Your task to perform on an android device: install app "Calculator" Image 0: 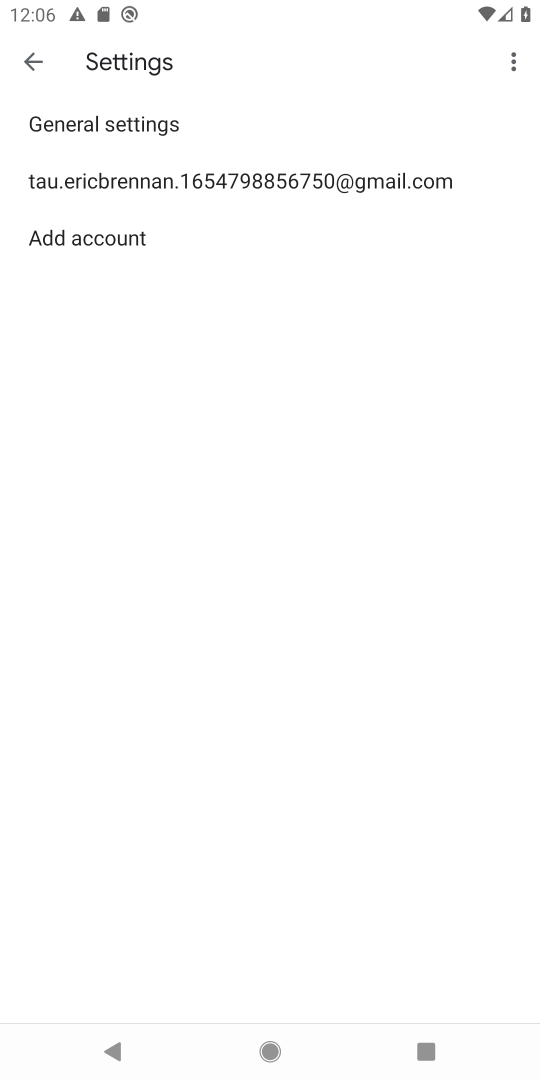
Step 0: press home button
Your task to perform on an android device: install app "Calculator" Image 1: 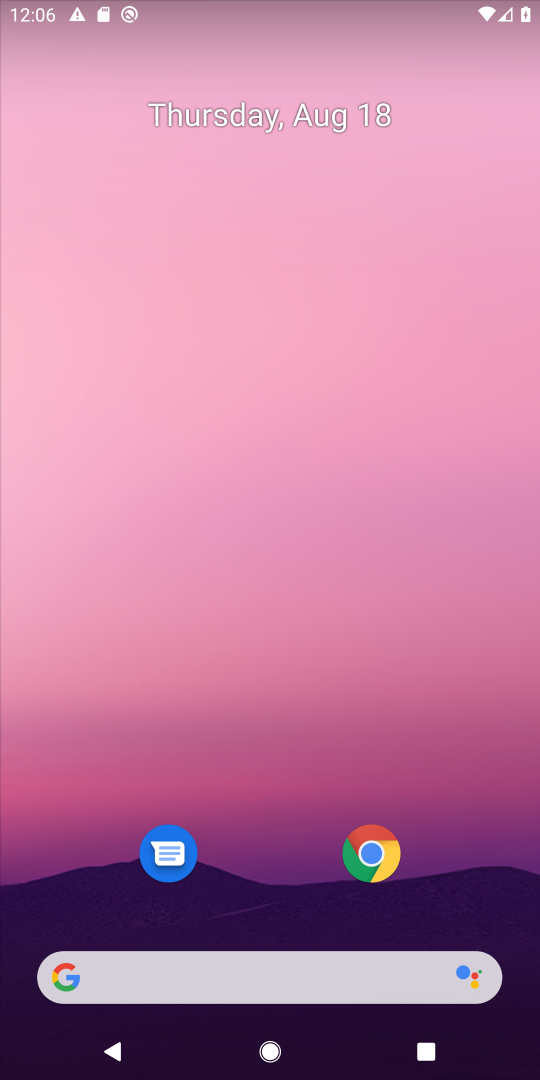
Step 1: drag from (277, 981) to (378, 22)
Your task to perform on an android device: install app "Calculator" Image 2: 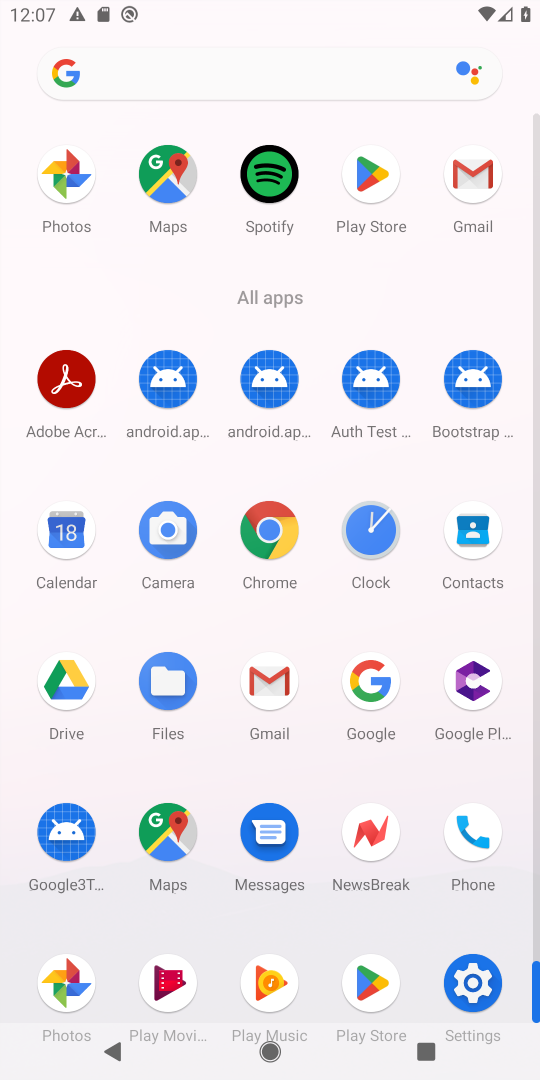
Step 2: click (379, 990)
Your task to perform on an android device: install app "Calculator" Image 3: 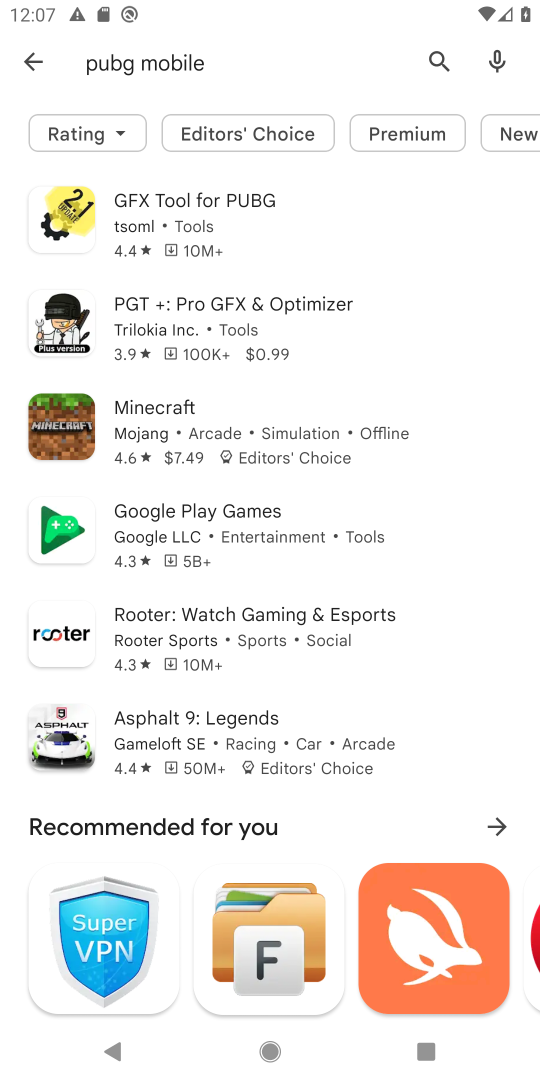
Step 3: click (32, 65)
Your task to perform on an android device: install app "Calculator" Image 4: 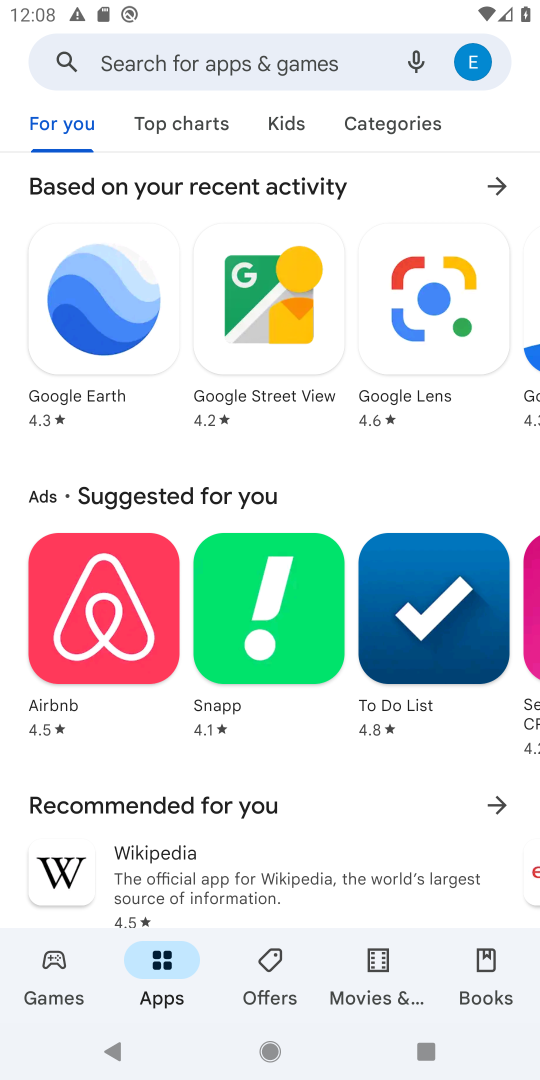
Step 4: click (175, 74)
Your task to perform on an android device: install app "Calculator" Image 5: 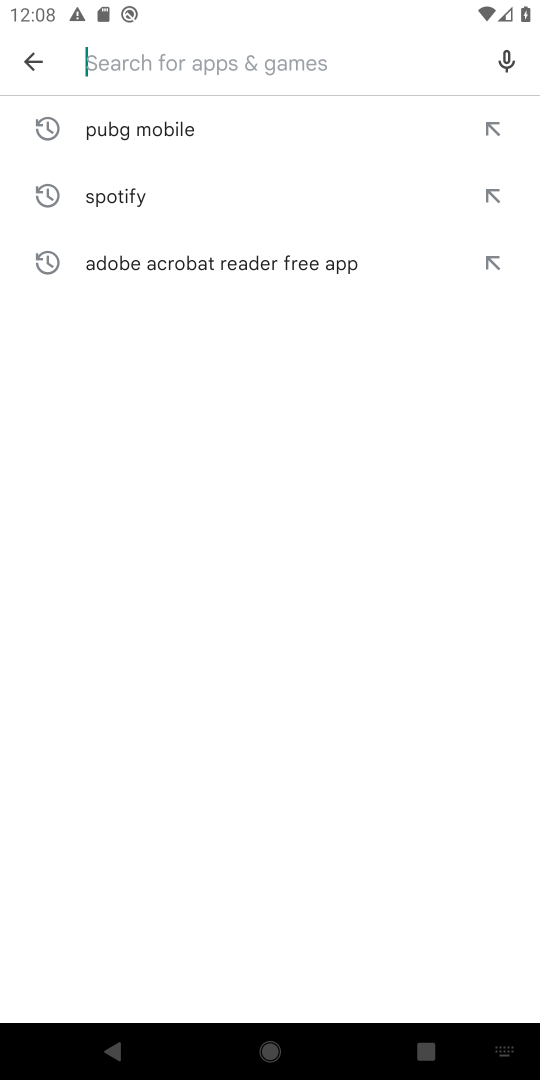
Step 5: type "Calculator"
Your task to perform on an android device: install app "Calculator" Image 6: 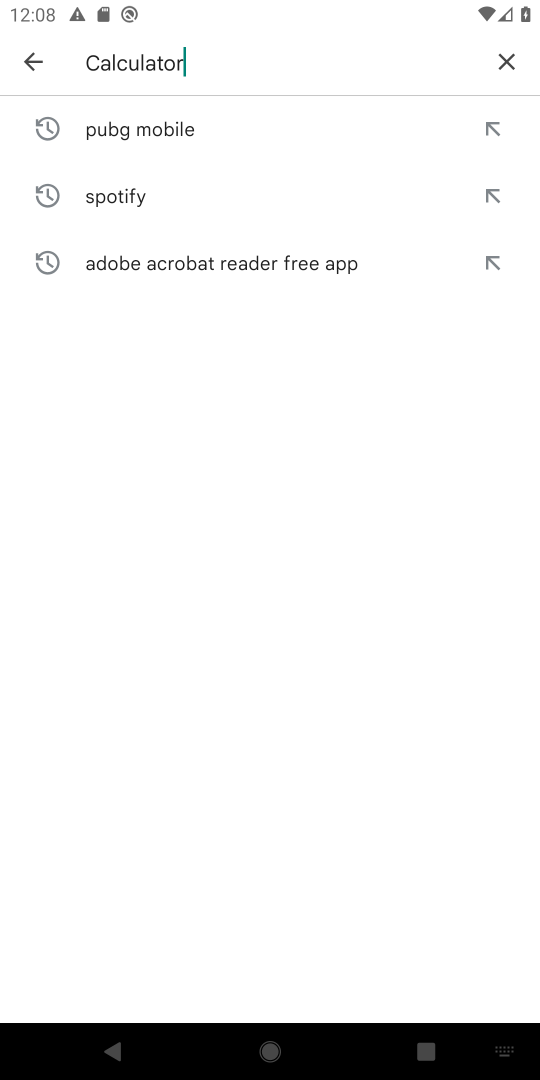
Step 6: type ""
Your task to perform on an android device: install app "Calculator" Image 7: 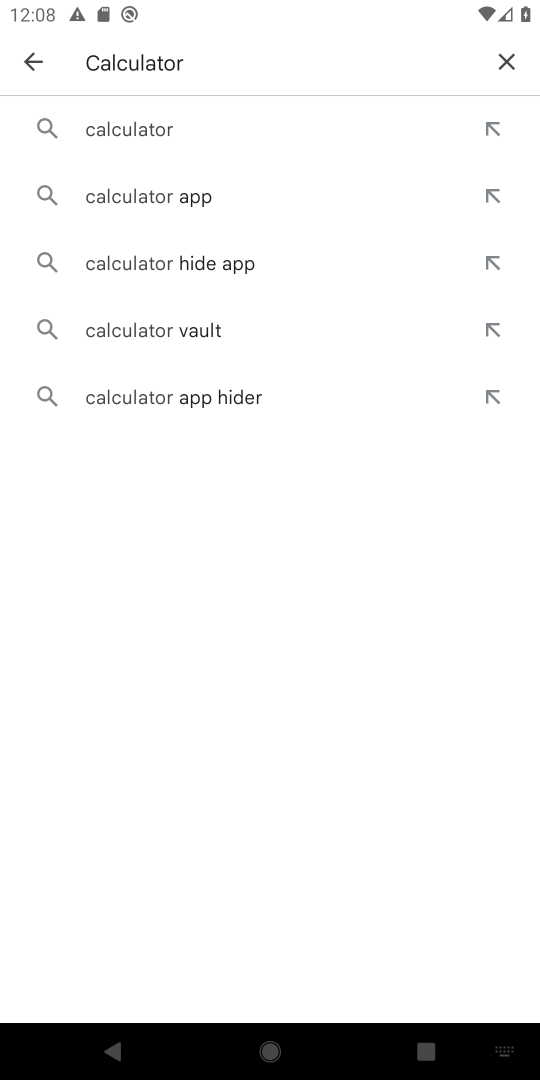
Step 7: click (232, 129)
Your task to perform on an android device: install app "Calculator" Image 8: 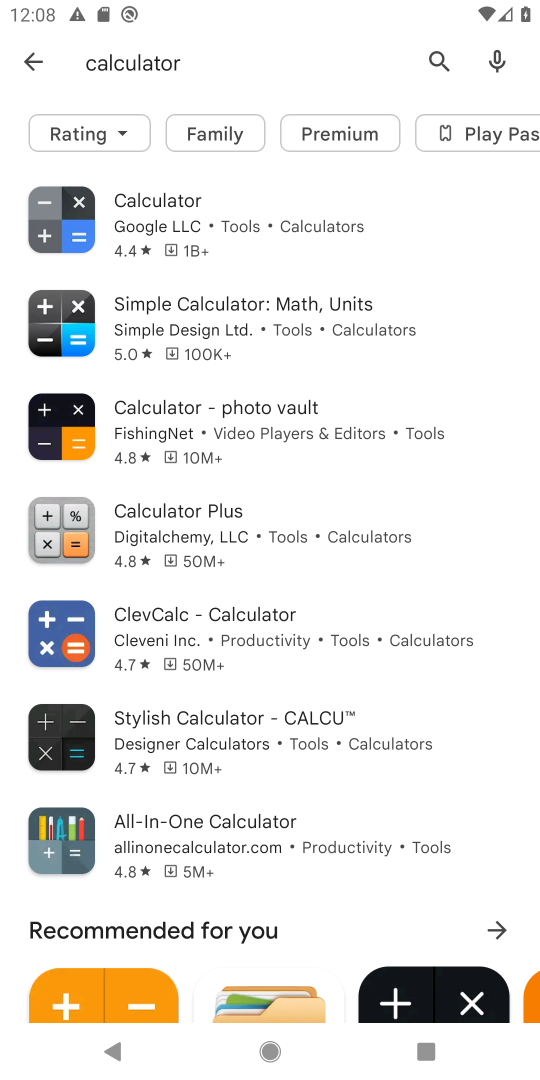
Step 8: click (286, 228)
Your task to perform on an android device: install app "Calculator" Image 9: 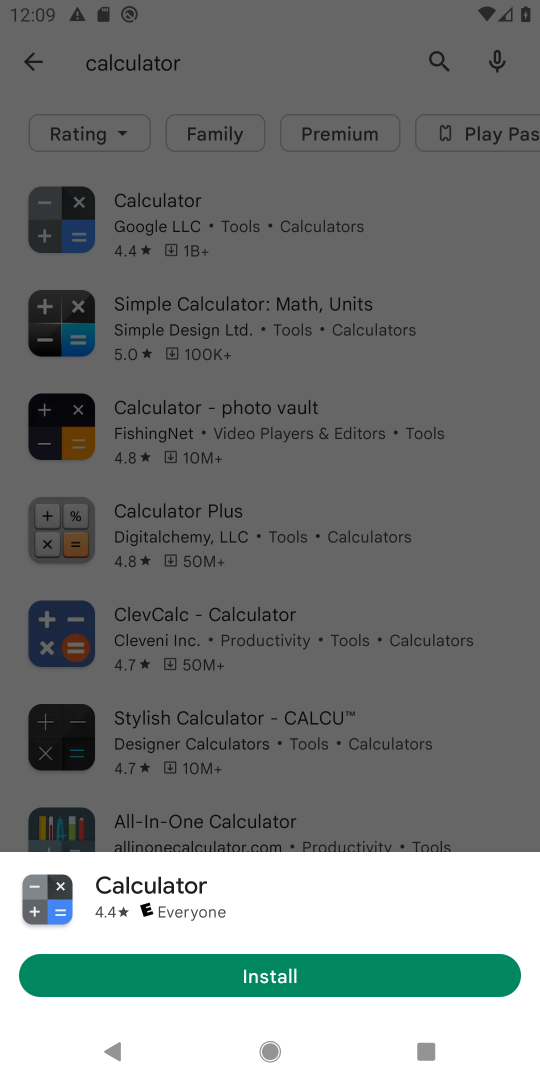
Step 9: click (296, 996)
Your task to perform on an android device: install app "Calculator" Image 10: 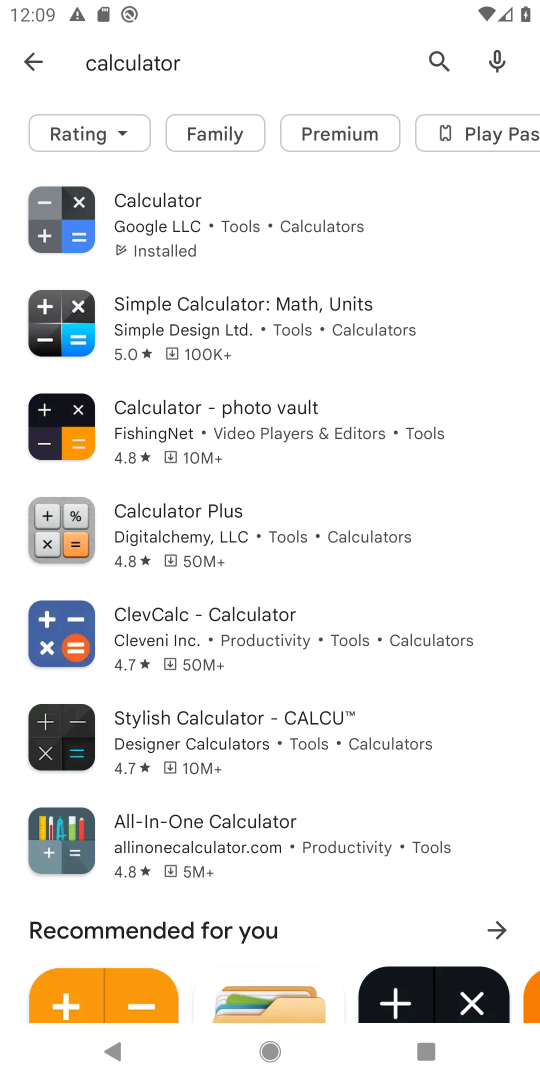
Step 10: click (251, 239)
Your task to perform on an android device: install app "Calculator" Image 11: 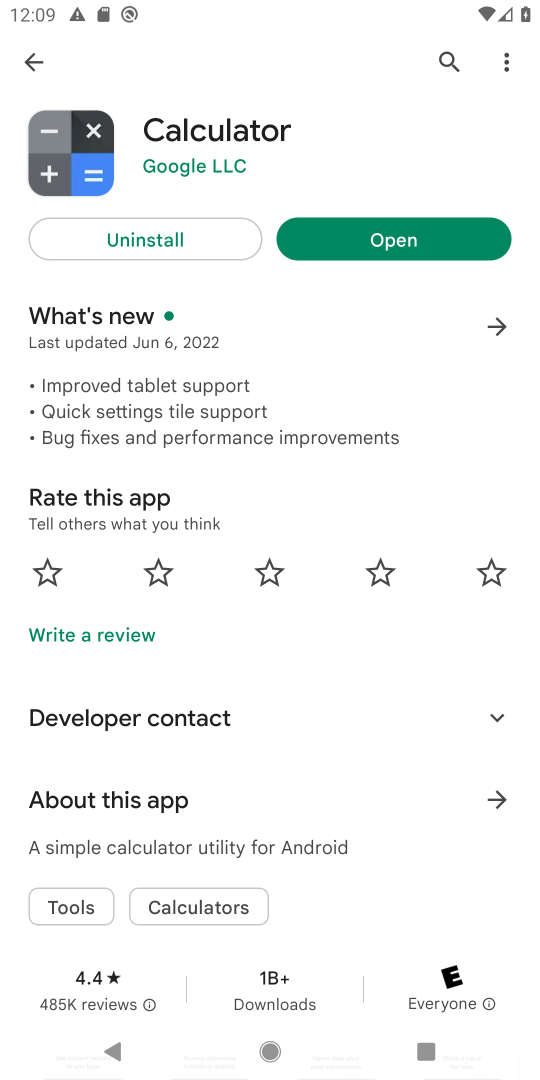
Step 11: task complete